Your task to perform on an android device: Open the web browser Image 0: 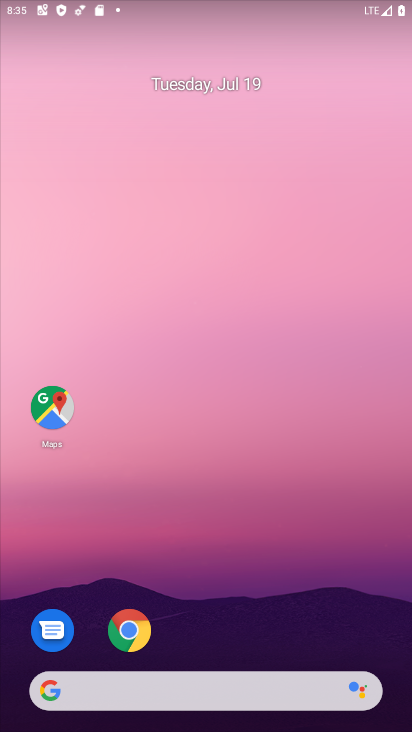
Step 0: drag from (213, 624) to (322, 144)
Your task to perform on an android device: Open the web browser Image 1: 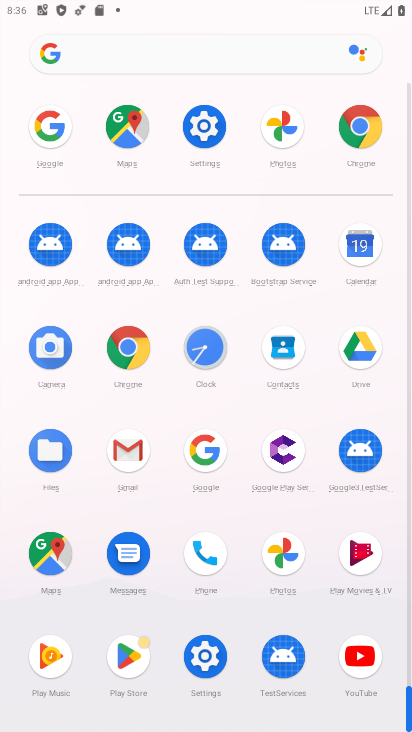
Step 1: click (352, 142)
Your task to perform on an android device: Open the web browser Image 2: 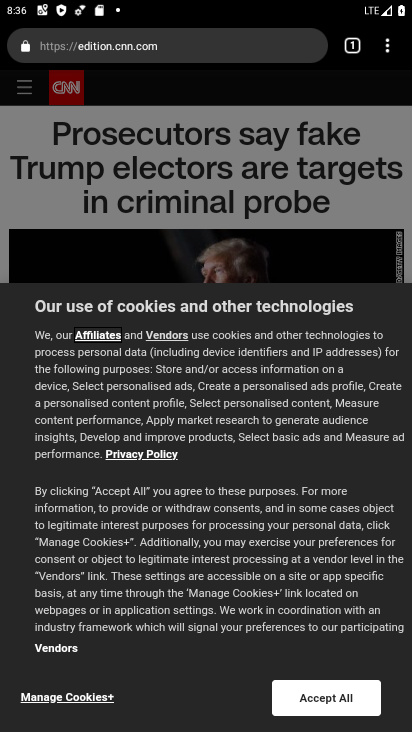
Step 2: task complete